Your task to perform on an android device: Open Google Maps Image 0: 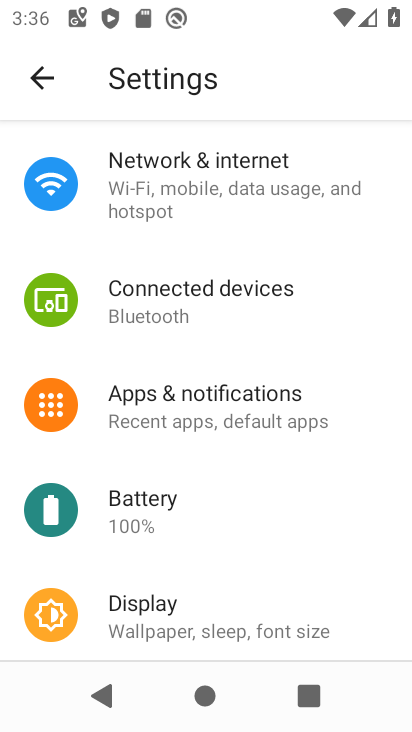
Step 0: press back button
Your task to perform on an android device: Open Google Maps Image 1: 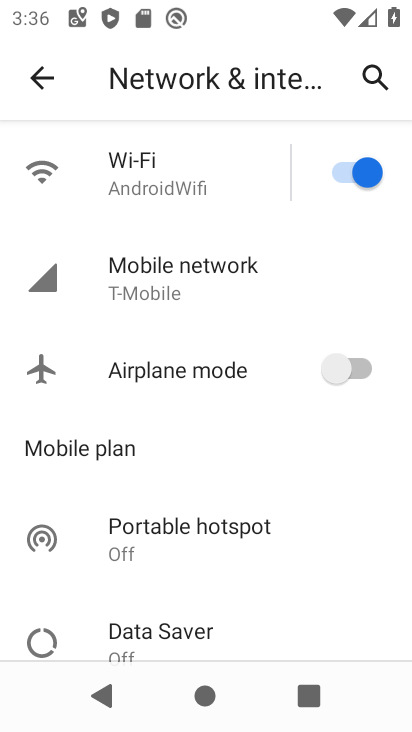
Step 1: press home button
Your task to perform on an android device: Open Google Maps Image 2: 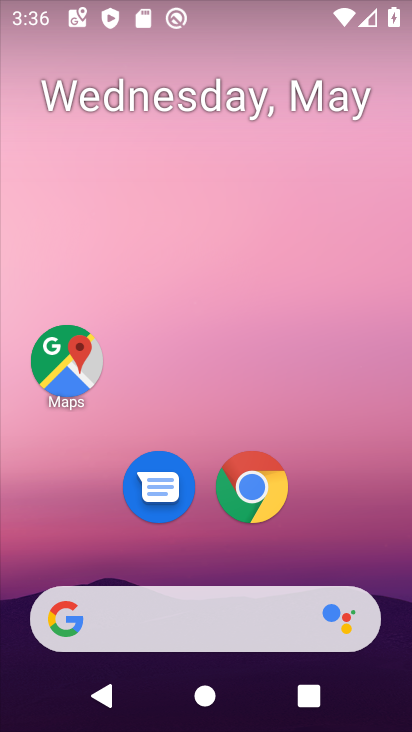
Step 2: drag from (350, 518) to (287, 66)
Your task to perform on an android device: Open Google Maps Image 3: 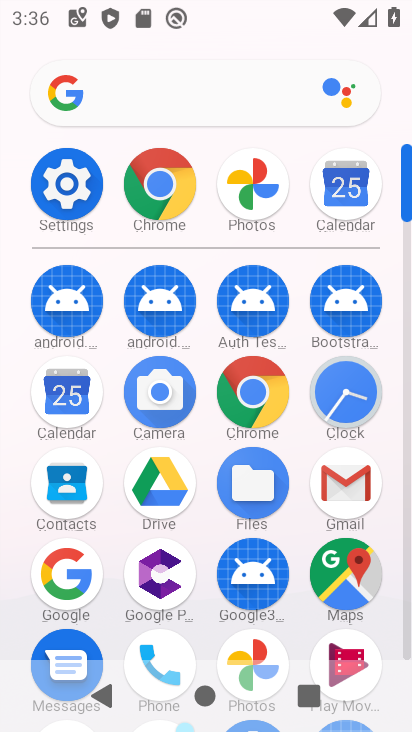
Step 3: drag from (2, 534) to (28, 213)
Your task to perform on an android device: Open Google Maps Image 4: 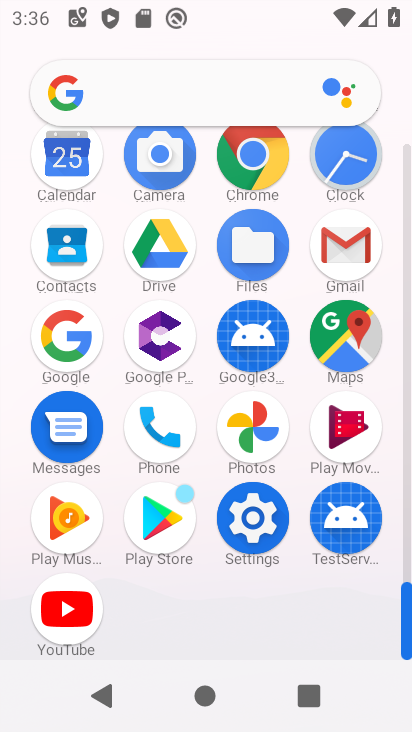
Step 4: click (347, 332)
Your task to perform on an android device: Open Google Maps Image 5: 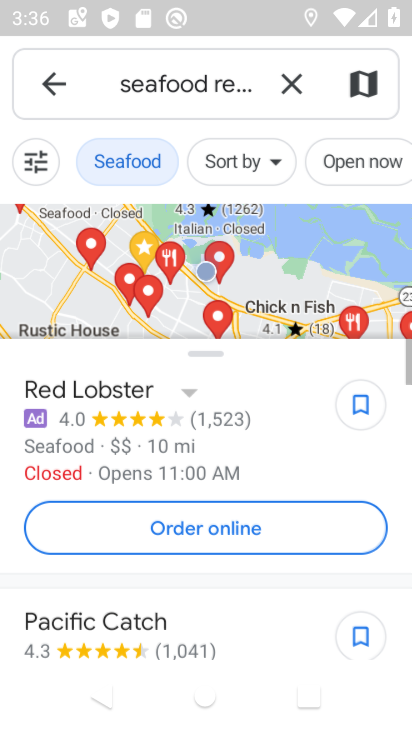
Step 5: click (281, 73)
Your task to perform on an android device: Open Google Maps Image 6: 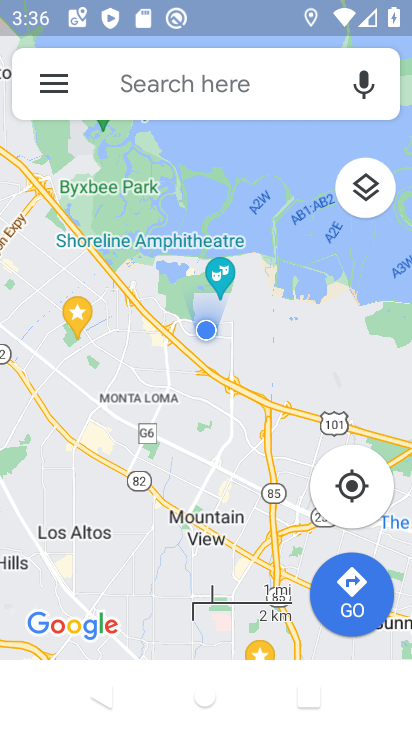
Step 6: click (272, 85)
Your task to perform on an android device: Open Google Maps Image 7: 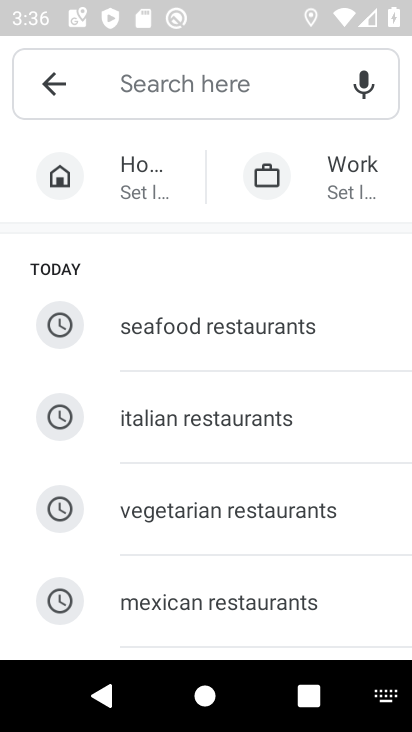
Step 7: click (59, 85)
Your task to perform on an android device: Open Google Maps Image 8: 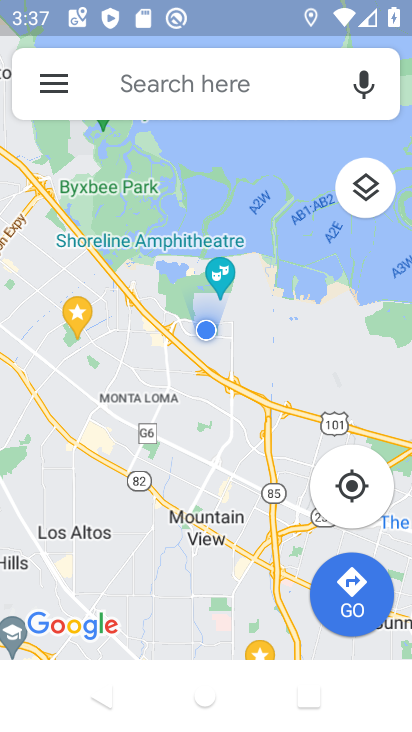
Step 8: task complete